Your task to perform on an android device: What's on my calendar today? Image 0: 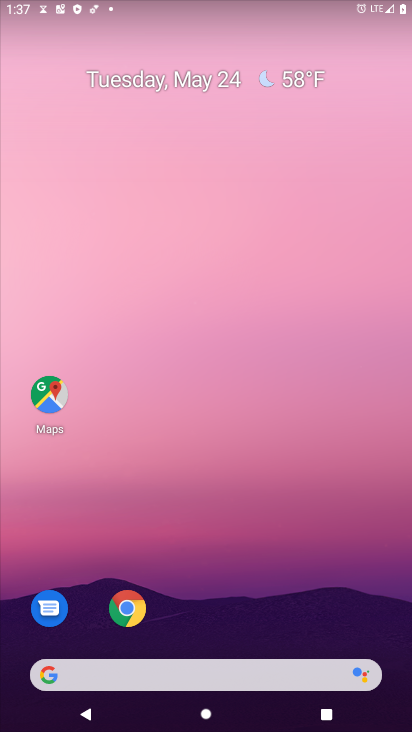
Step 0: click (328, 424)
Your task to perform on an android device: What's on my calendar today? Image 1: 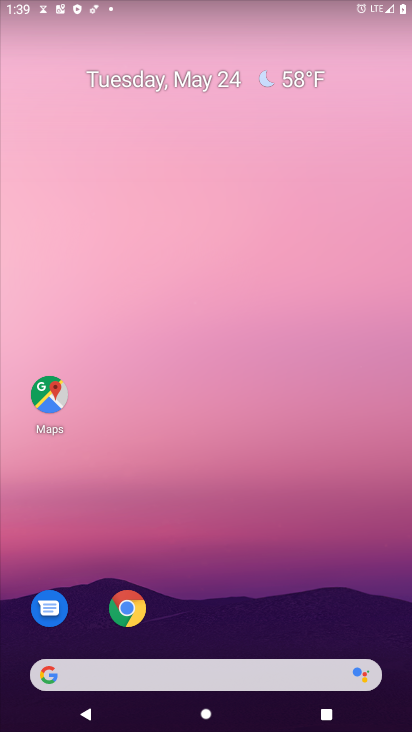
Step 1: drag from (264, 660) to (117, 75)
Your task to perform on an android device: What's on my calendar today? Image 2: 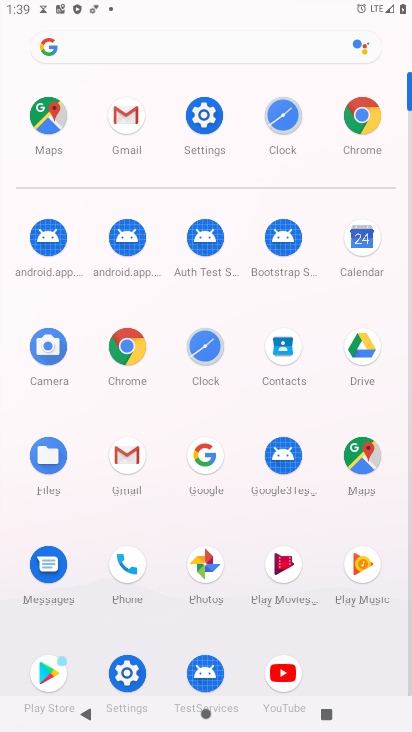
Step 2: click (374, 236)
Your task to perform on an android device: What's on my calendar today? Image 3: 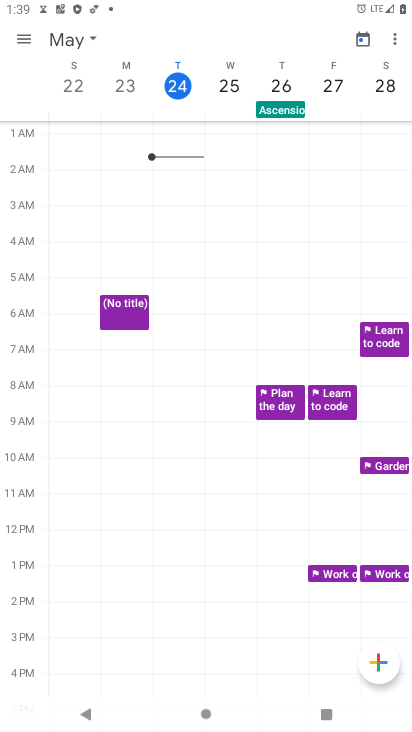
Step 3: click (33, 33)
Your task to perform on an android device: What's on my calendar today? Image 4: 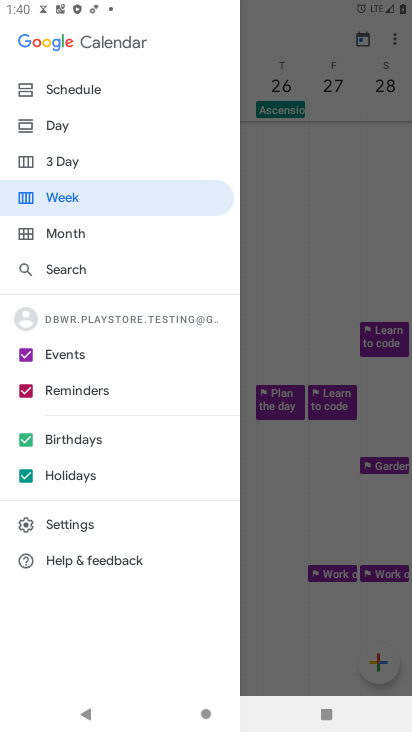
Step 4: click (106, 83)
Your task to perform on an android device: What's on my calendar today? Image 5: 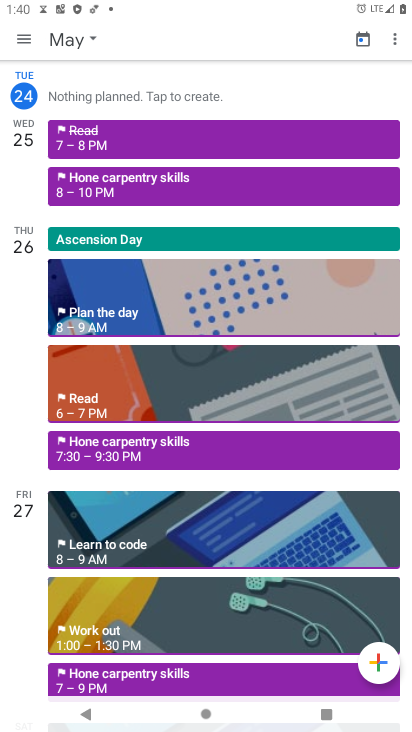
Step 5: task complete